Your task to perform on an android device: star an email in the gmail app Image 0: 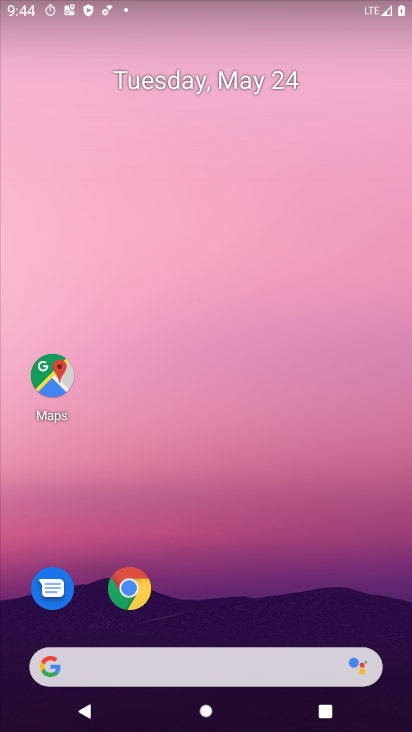
Step 0: drag from (282, 564) to (254, 131)
Your task to perform on an android device: star an email in the gmail app Image 1: 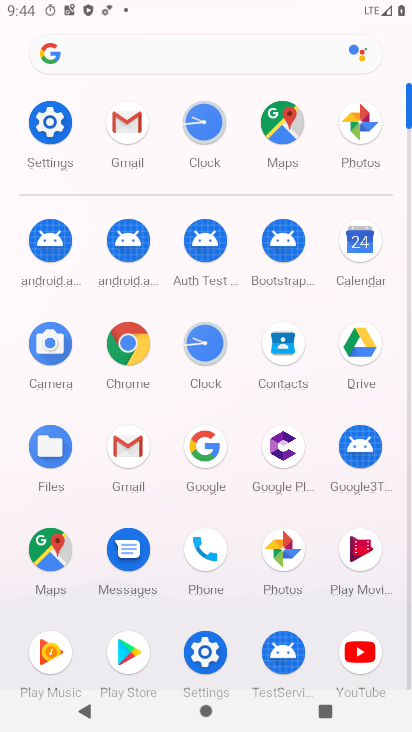
Step 1: click (127, 116)
Your task to perform on an android device: star an email in the gmail app Image 2: 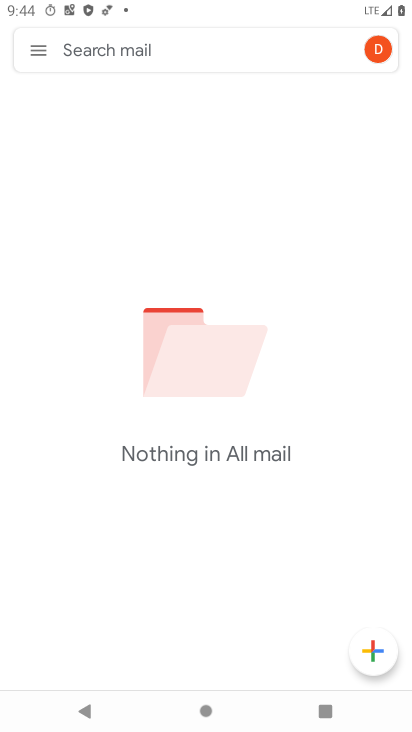
Step 2: task complete